Your task to perform on an android device: add a contact in the contacts app Image 0: 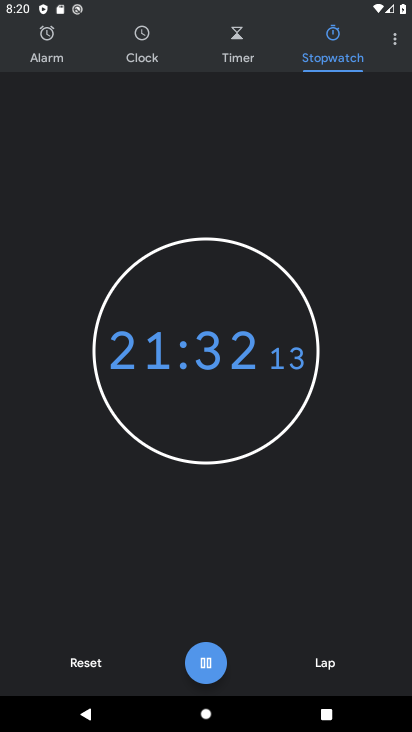
Step 0: press home button
Your task to perform on an android device: add a contact in the contacts app Image 1: 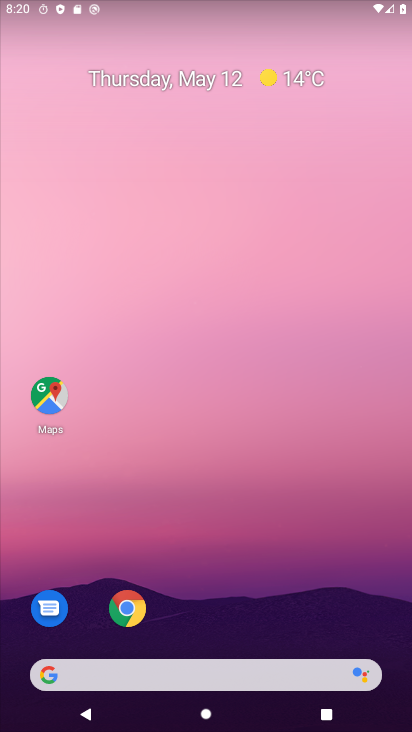
Step 1: drag from (282, 497) to (314, 81)
Your task to perform on an android device: add a contact in the contacts app Image 2: 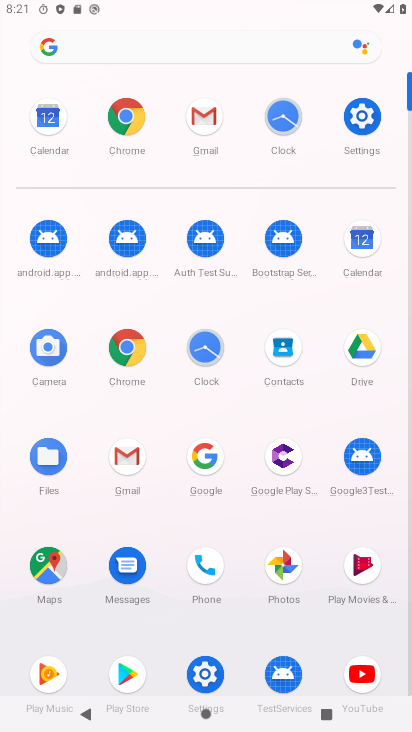
Step 2: click (292, 351)
Your task to perform on an android device: add a contact in the contacts app Image 3: 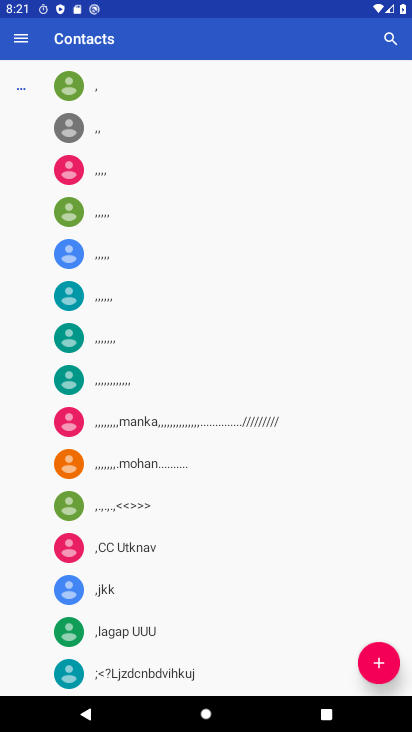
Step 3: click (375, 661)
Your task to perform on an android device: add a contact in the contacts app Image 4: 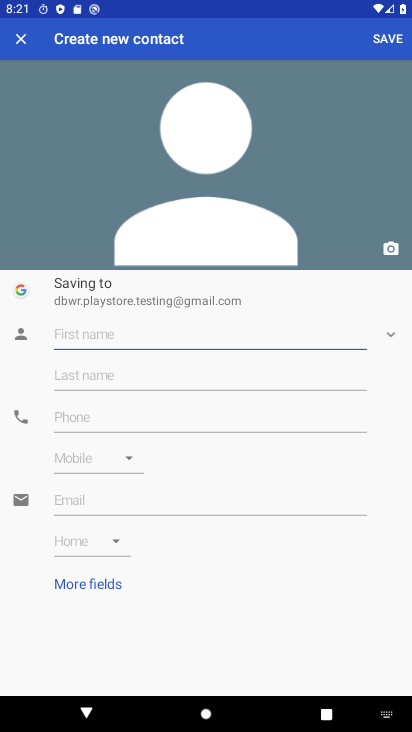
Step 4: click (252, 318)
Your task to perform on an android device: add a contact in the contacts app Image 5: 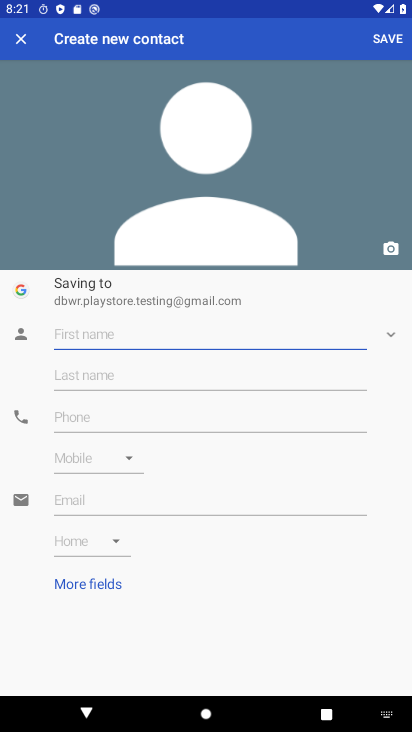
Step 5: type "sggfjgf"
Your task to perform on an android device: add a contact in the contacts app Image 6: 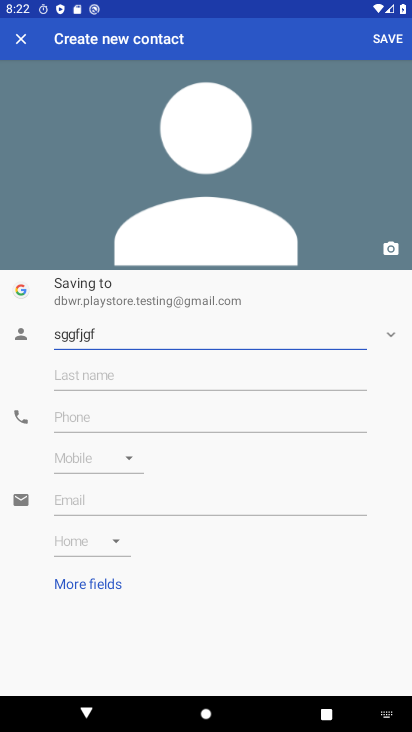
Step 6: click (119, 409)
Your task to perform on an android device: add a contact in the contacts app Image 7: 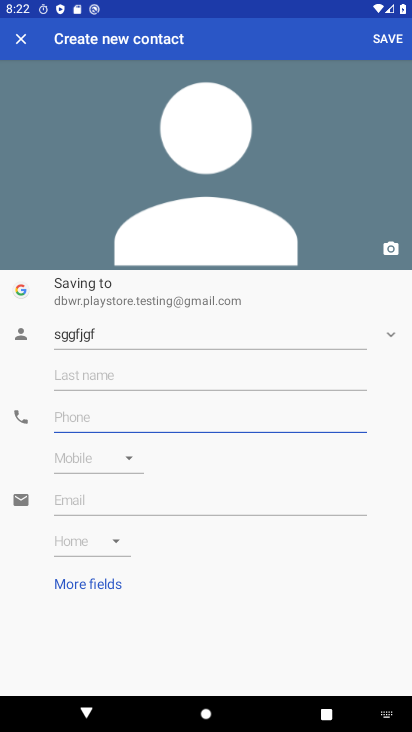
Step 7: type "976467896"
Your task to perform on an android device: add a contact in the contacts app Image 8: 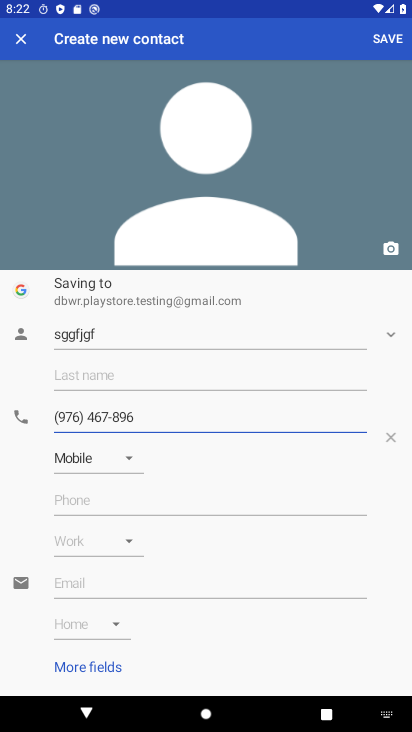
Step 8: click (386, 31)
Your task to perform on an android device: add a contact in the contacts app Image 9: 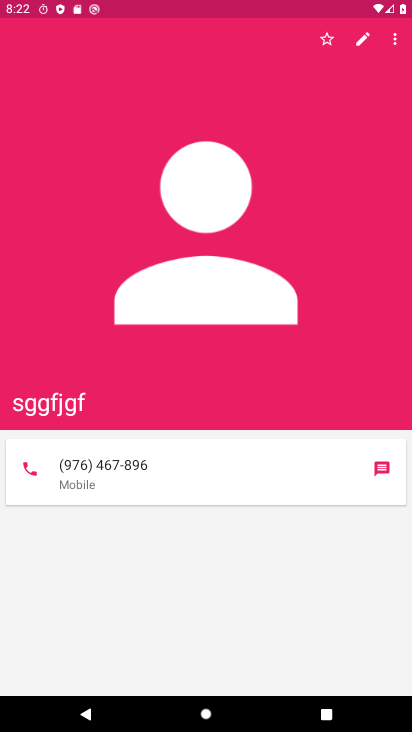
Step 9: task complete